Your task to perform on an android device: star an email in the gmail app Image 0: 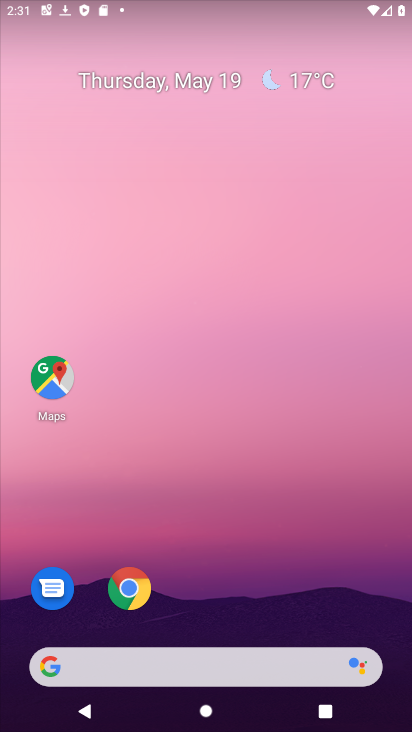
Step 0: drag from (269, 554) to (285, 115)
Your task to perform on an android device: star an email in the gmail app Image 1: 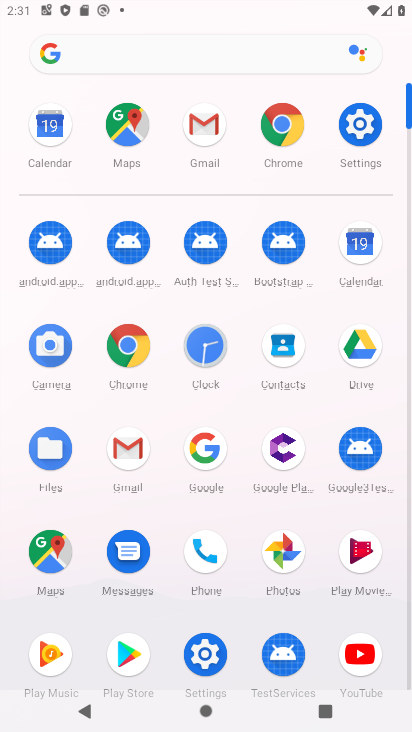
Step 1: click (206, 120)
Your task to perform on an android device: star an email in the gmail app Image 2: 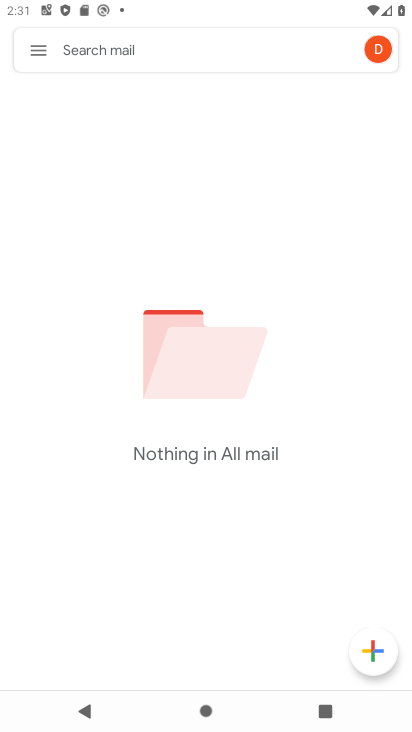
Step 2: task complete